Your task to perform on an android device: turn off sleep mode Image 0: 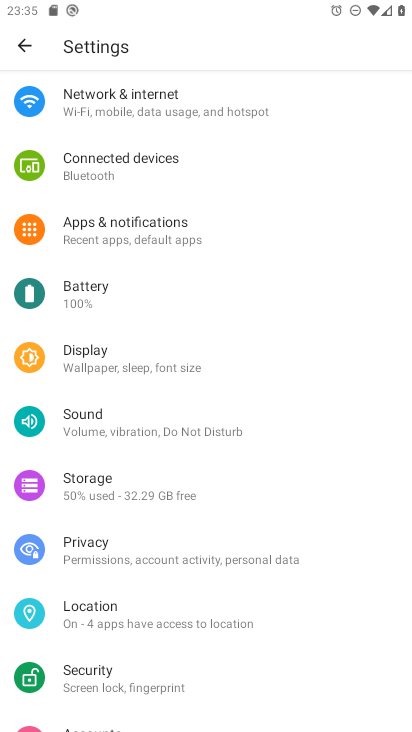
Step 0: click (142, 368)
Your task to perform on an android device: turn off sleep mode Image 1: 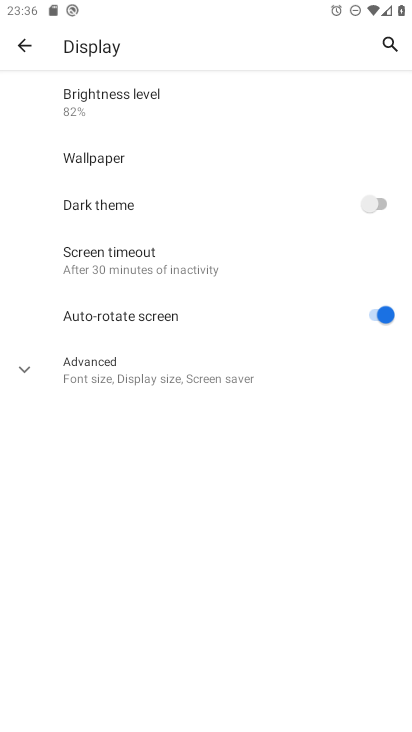
Step 1: click (139, 258)
Your task to perform on an android device: turn off sleep mode Image 2: 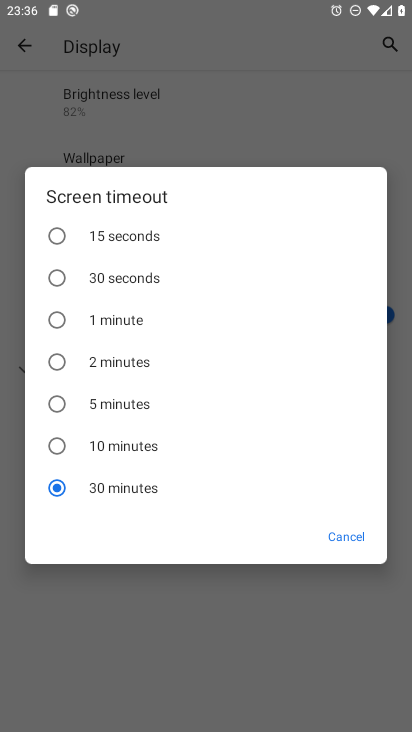
Step 2: task complete